Your task to perform on an android device: Open my contact list Image 0: 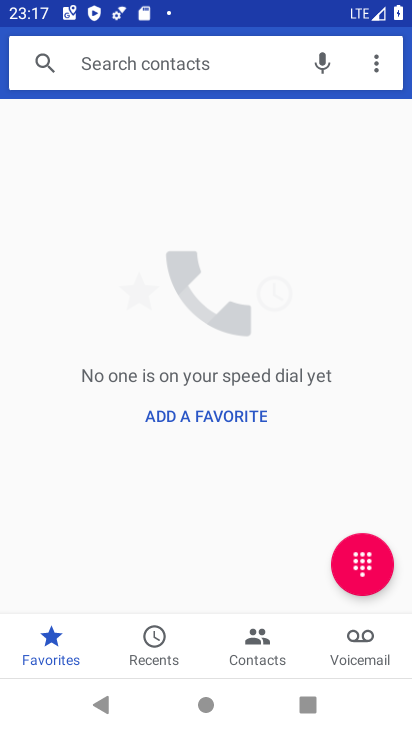
Step 0: drag from (213, 605) to (219, 282)
Your task to perform on an android device: Open my contact list Image 1: 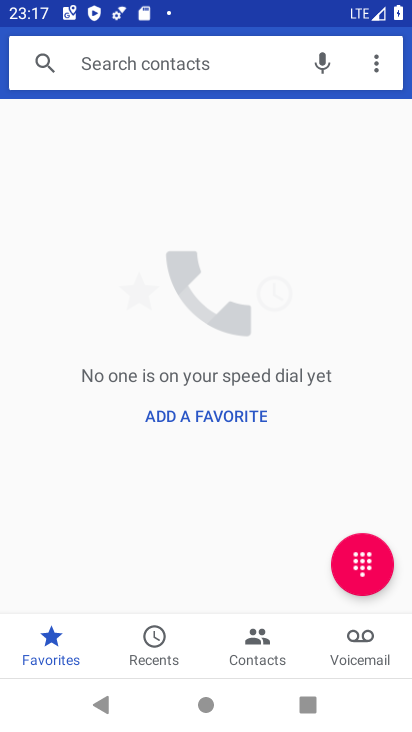
Step 1: drag from (198, 516) to (227, 278)
Your task to perform on an android device: Open my contact list Image 2: 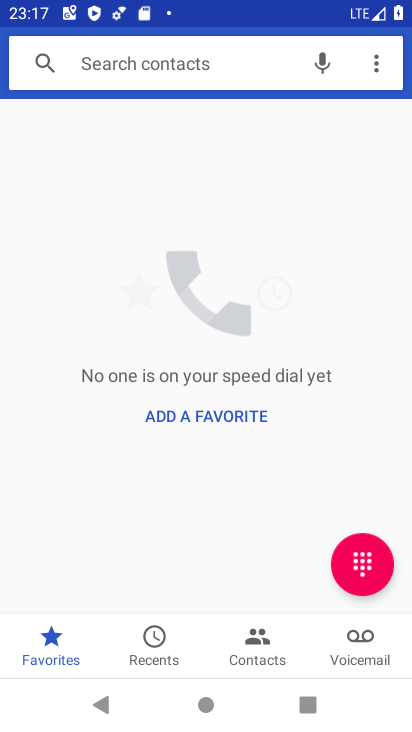
Step 2: press home button
Your task to perform on an android device: Open my contact list Image 3: 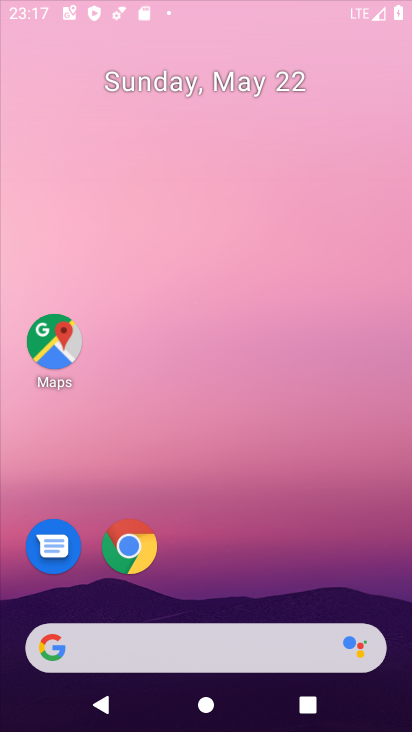
Step 3: drag from (243, 589) to (281, 99)
Your task to perform on an android device: Open my contact list Image 4: 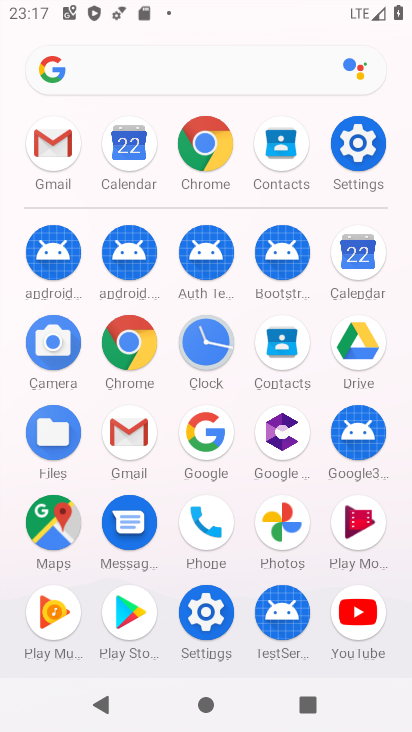
Step 4: click (285, 348)
Your task to perform on an android device: Open my contact list Image 5: 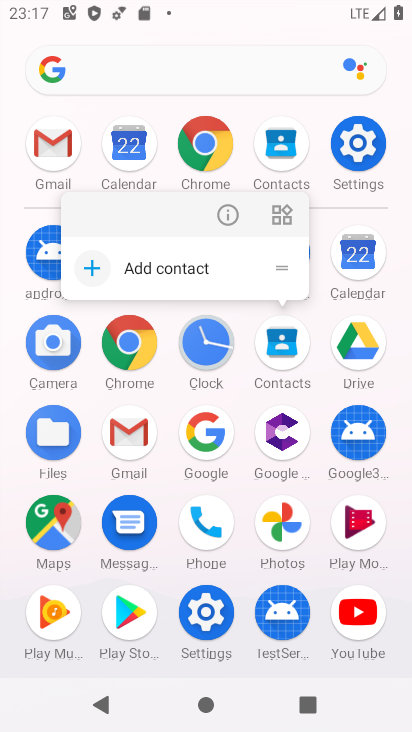
Step 5: click (206, 217)
Your task to perform on an android device: Open my contact list Image 6: 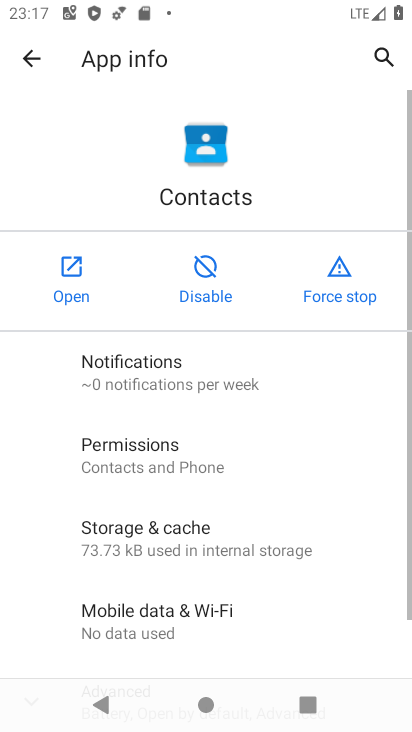
Step 6: click (71, 265)
Your task to perform on an android device: Open my contact list Image 7: 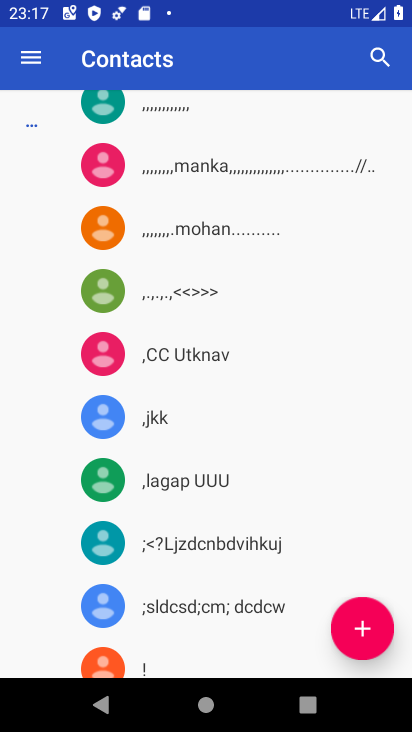
Step 7: task complete